Your task to perform on an android device: turn off smart reply in the gmail app Image 0: 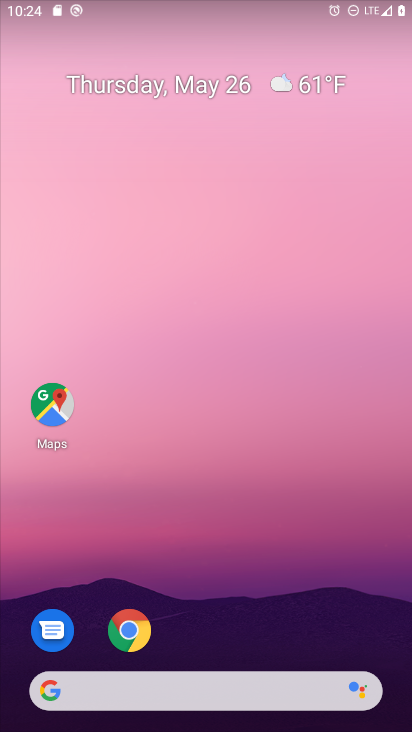
Step 0: drag from (232, 673) to (204, 39)
Your task to perform on an android device: turn off smart reply in the gmail app Image 1: 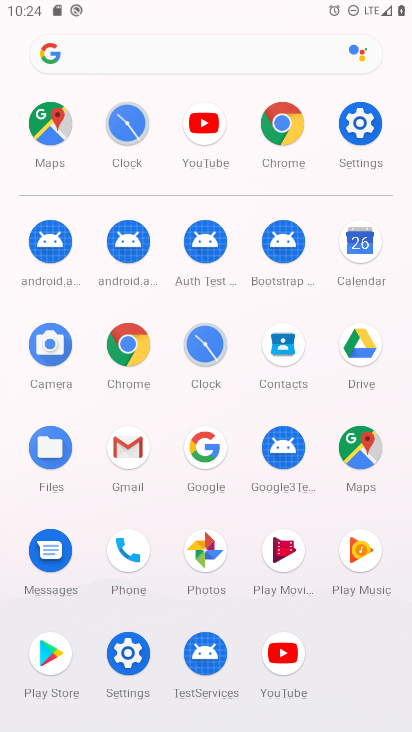
Step 1: click (130, 455)
Your task to perform on an android device: turn off smart reply in the gmail app Image 2: 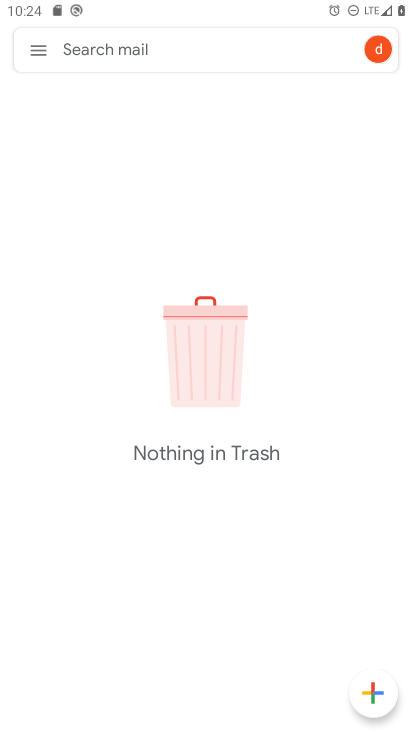
Step 2: click (33, 58)
Your task to perform on an android device: turn off smart reply in the gmail app Image 3: 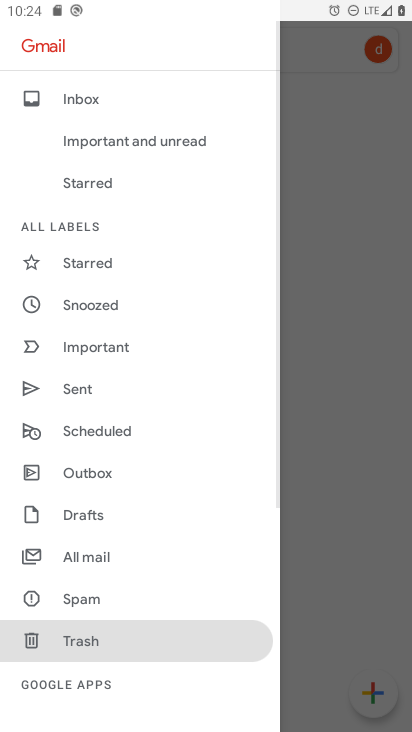
Step 3: drag from (105, 546) to (97, 213)
Your task to perform on an android device: turn off smart reply in the gmail app Image 4: 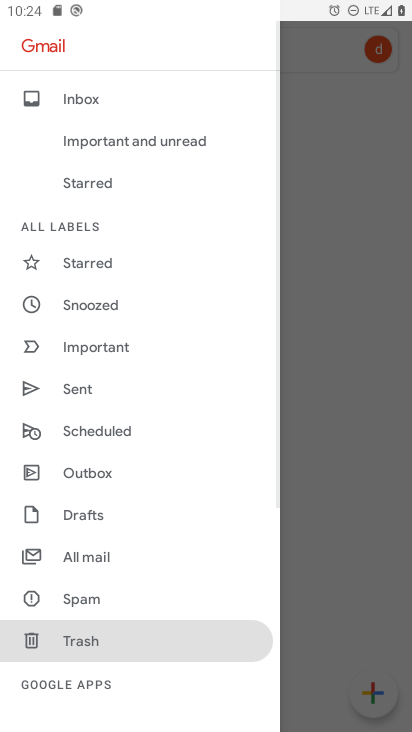
Step 4: drag from (121, 707) to (136, 207)
Your task to perform on an android device: turn off smart reply in the gmail app Image 5: 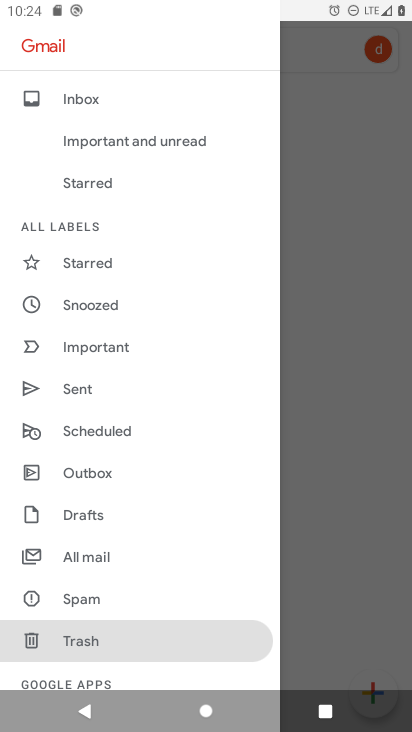
Step 5: drag from (103, 576) to (110, 80)
Your task to perform on an android device: turn off smart reply in the gmail app Image 6: 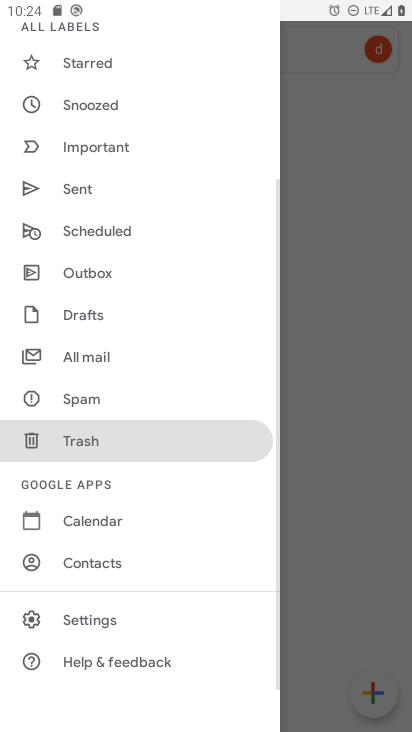
Step 6: click (77, 612)
Your task to perform on an android device: turn off smart reply in the gmail app Image 7: 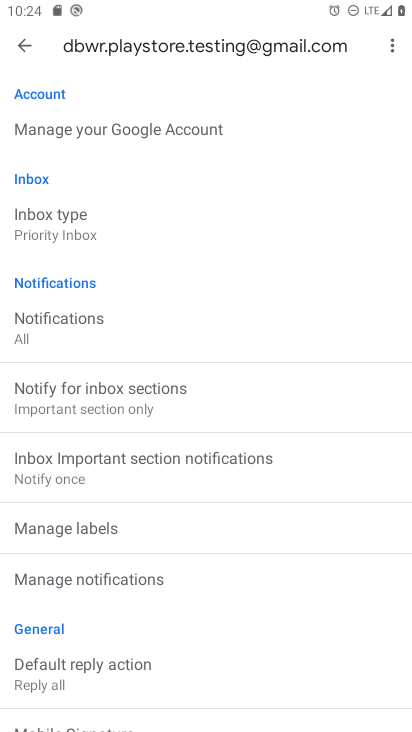
Step 7: drag from (77, 612) to (117, 61)
Your task to perform on an android device: turn off smart reply in the gmail app Image 8: 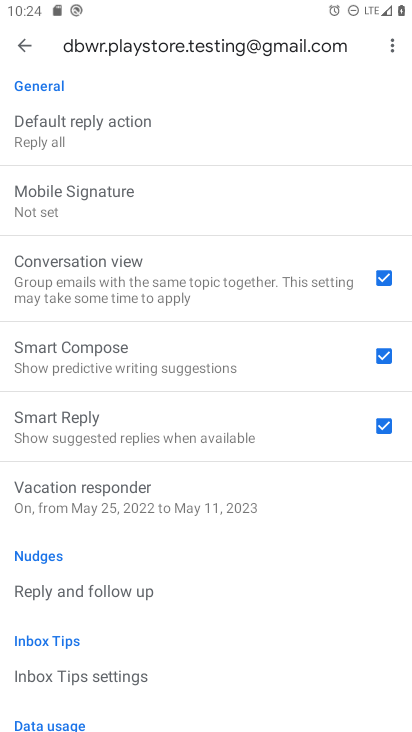
Step 8: click (380, 426)
Your task to perform on an android device: turn off smart reply in the gmail app Image 9: 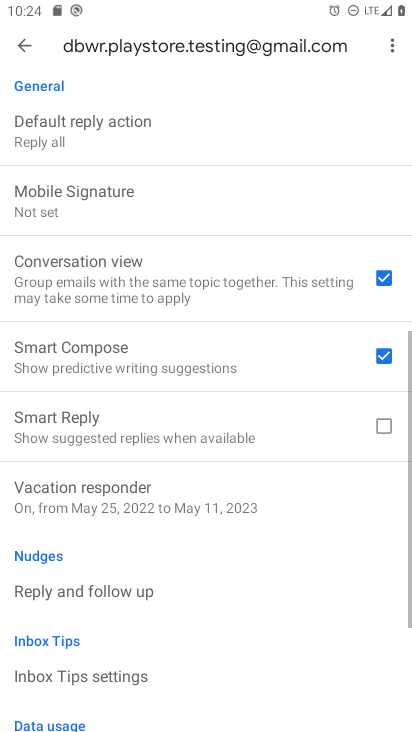
Step 9: task complete